Your task to perform on an android device: What's the weather today? Image 0: 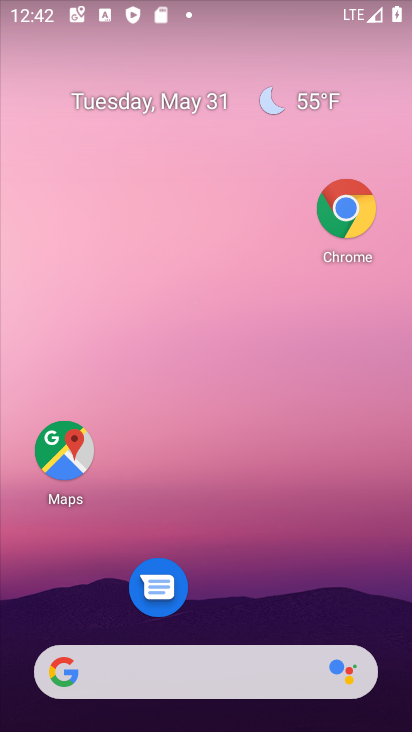
Step 0: click (305, 106)
Your task to perform on an android device: What's the weather today? Image 1: 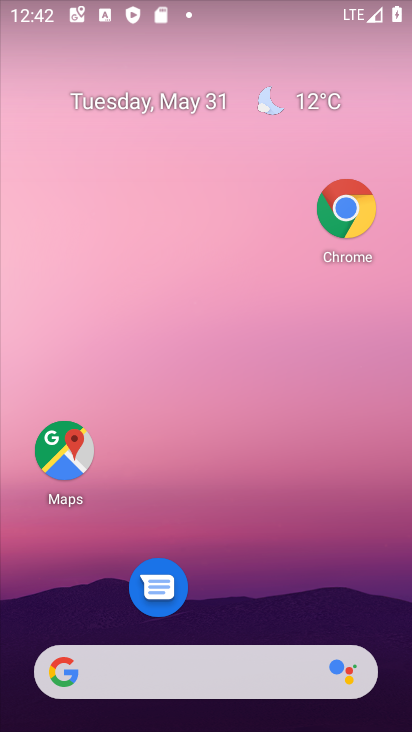
Step 1: click (305, 106)
Your task to perform on an android device: What's the weather today? Image 2: 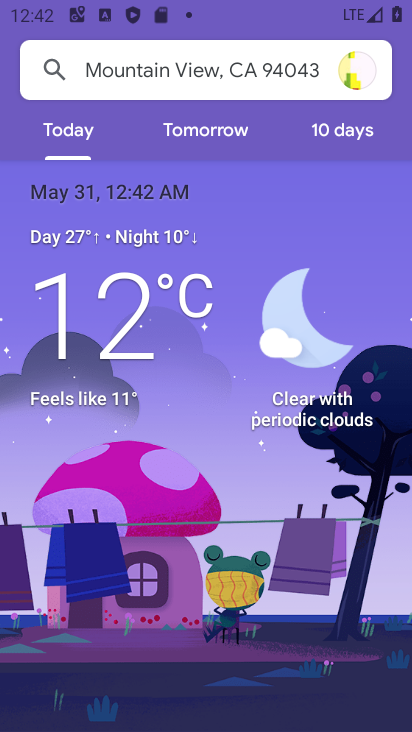
Step 2: task complete